Your task to perform on an android device: turn on notifications settings in the gmail app Image 0: 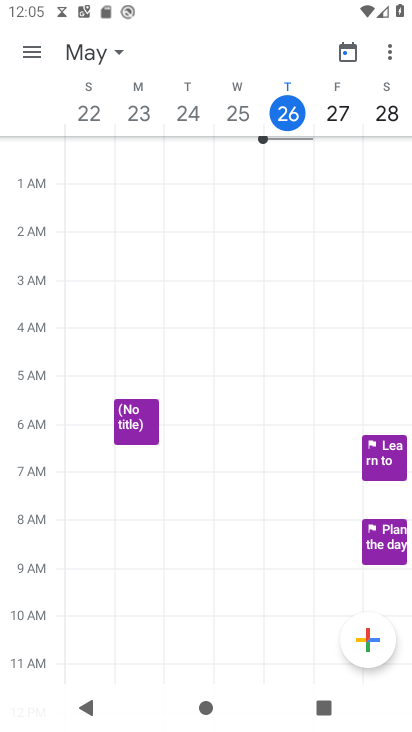
Step 0: press home button
Your task to perform on an android device: turn on notifications settings in the gmail app Image 1: 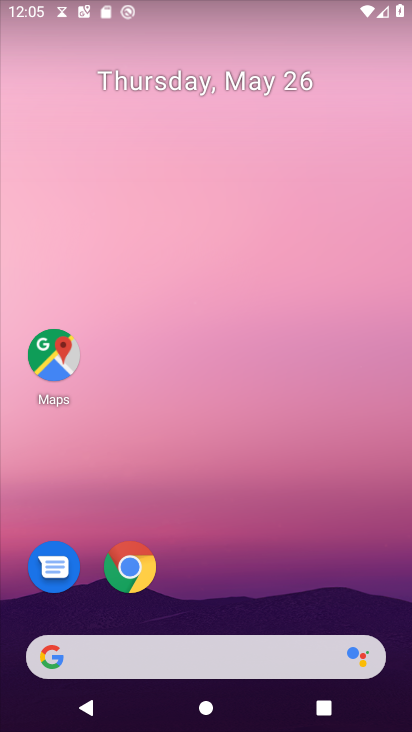
Step 1: drag from (268, 568) to (267, 392)
Your task to perform on an android device: turn on notifications settings in the gmail app Image 2: 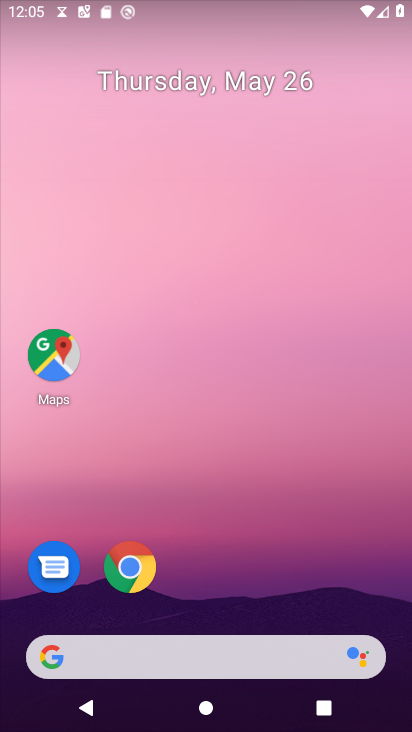
Step 2: drag from (168, 523) to (227, 117)
Your task to perform on an android device: turn on notifications settings in the gmail app Image 3: 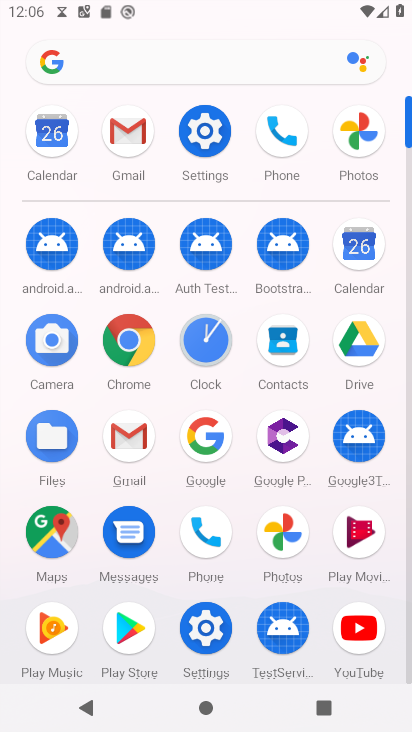
Step 3: click (135, 137)
Your task to perform on an android device: turn on notifications settings in the gmail app Image 4: 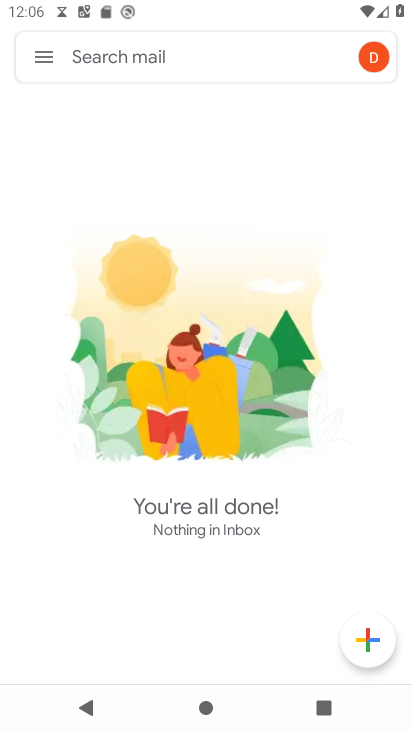
Step 4: click (31, 56)
Your task to perform on an android device: turn on notifications settings in the gmail app Image 5: 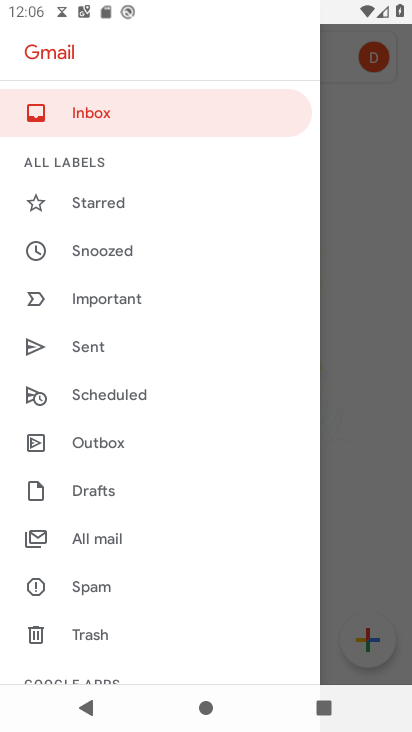
Step 5: drag from (175, 594) to (229, 248)
Your task to perform on an android device: turn on notifications settings in the gmail app Image 6: 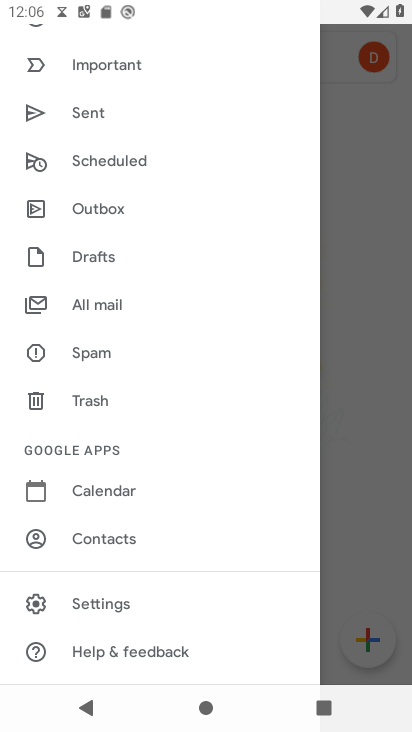
Step 6: drag from (124, 426) to (144, 195)
Your task to perform on an android device: turn on notifications settings in the gmail app Image 7: 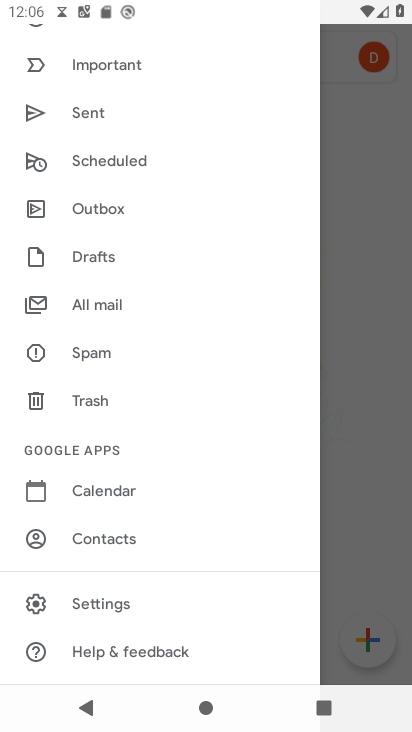
Step 7: click (99, 597)
Your task to perform on an android device: turn on notifications settings in the gmail app Image 8: 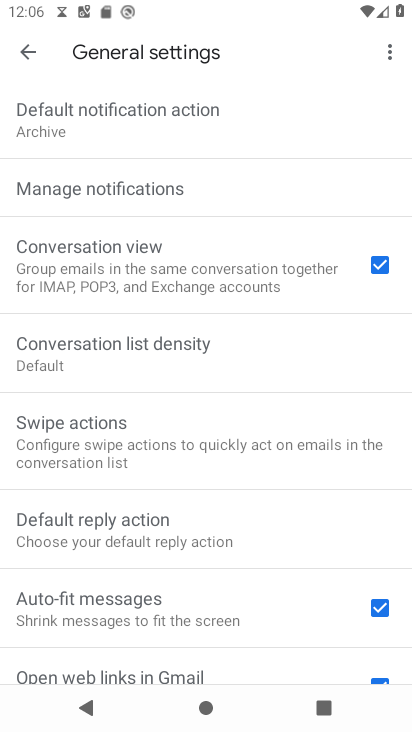
Step 8: drag from (230, 612) to (279, 143)
Your task to perform on an android device: turn on notifications settings in the gmail app Image 9: 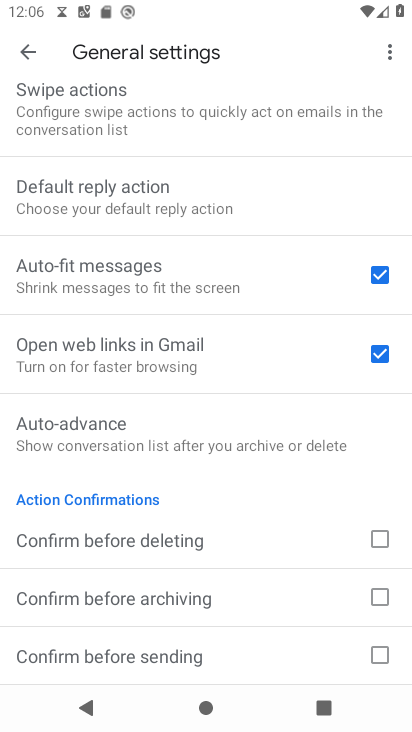
Step 9: drag from (268, 112) to (193, 705)
Your task to perform on an android device: turn on notifications settings in the gmail app Image 10: 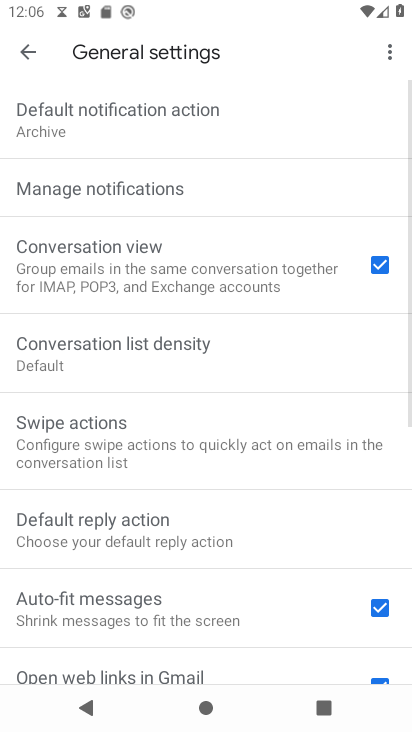
Step 10: click (213, 187)
Your task to perform on an android device: turn on notifications settings in the gmail app Image 11: 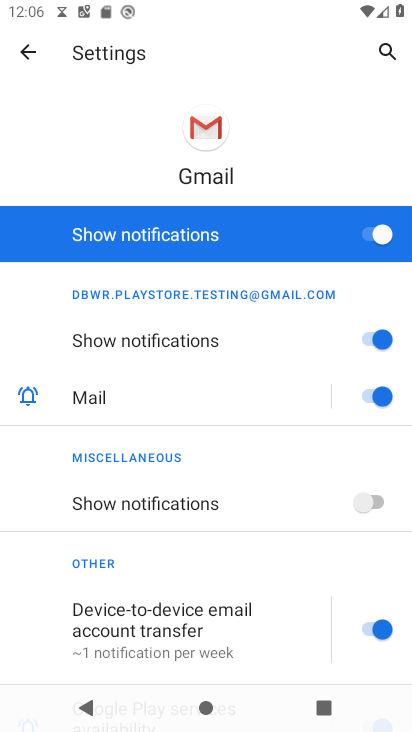
Step 11: task complete